Your task to perform on an android device: Open network settings Image 0: 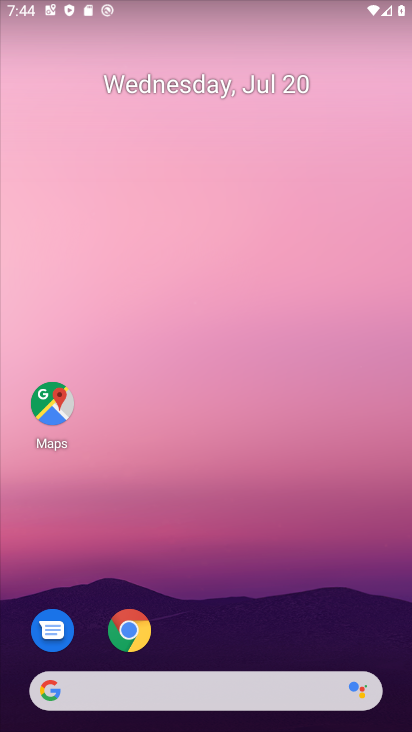
Step 0: drag from (236, 670) to (219, 157)
Your task to perform on an android device: Open network settings Image 1: 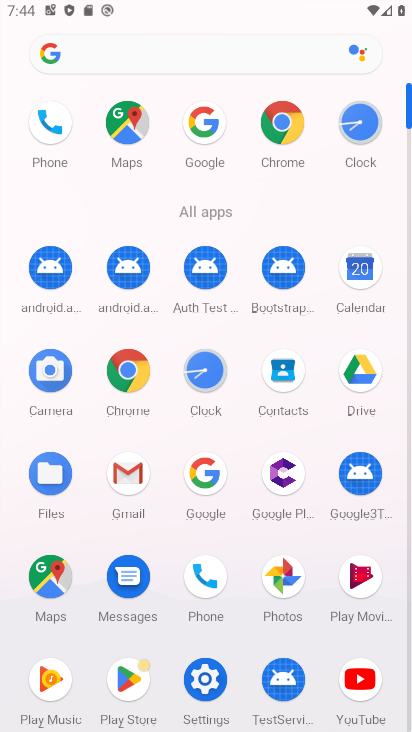
Step 1: click (202, 684)
Your task to perform on an android device: Open network settings Image 2: 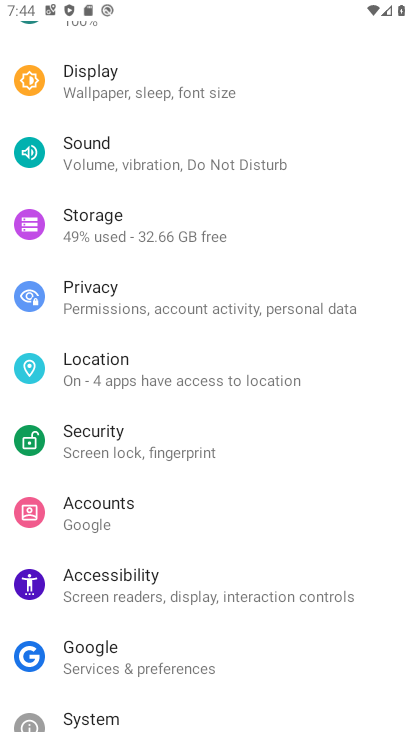
Step 2: drag from (201, 347) to (161, 611)
Your task to perform on an android device: Open network settings Image 3: 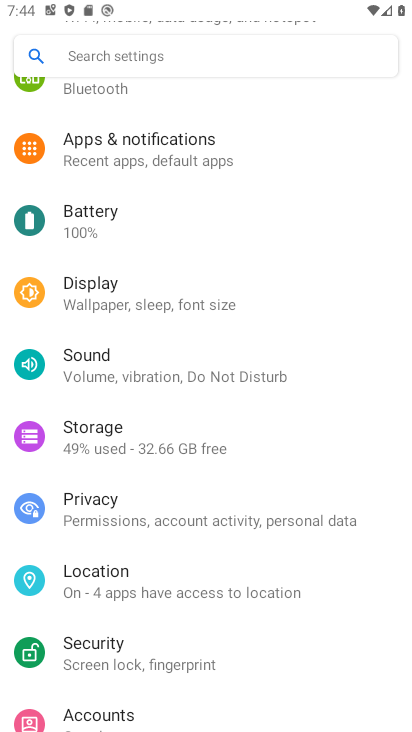
Step 3: drag from (147, 297) to (151, 617)
Your task to perform on an android device: Open network settings Image 4: 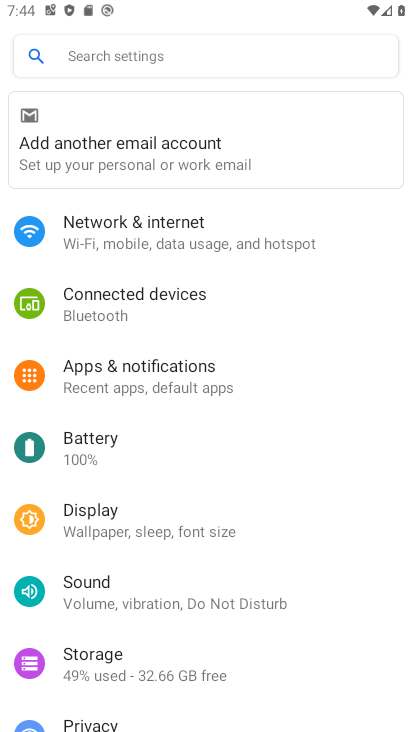
Step 4: click (145, 240)
Your task to perform on an android device: Open network settings Image 5: 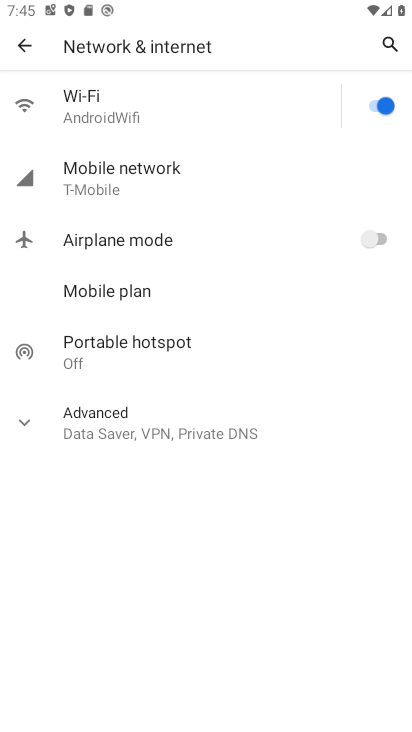
Step 5: click (161, 179)
Your task to perform on an android device: Open network settings Image 6: 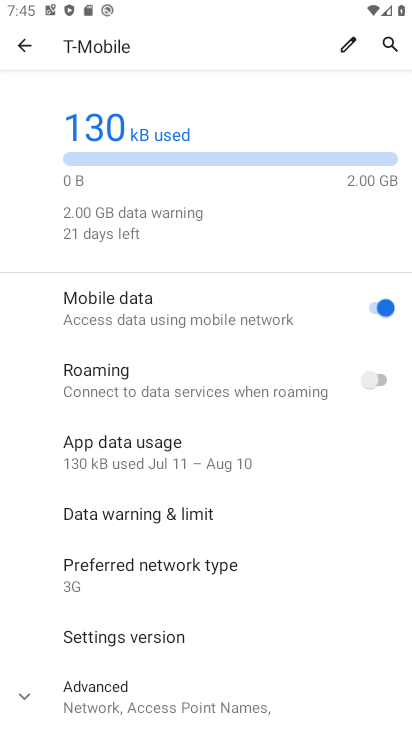
Step 6: task complete